Your task to perform on an android device: Open the Play Movies app and select the watchlist tab. Image 0: 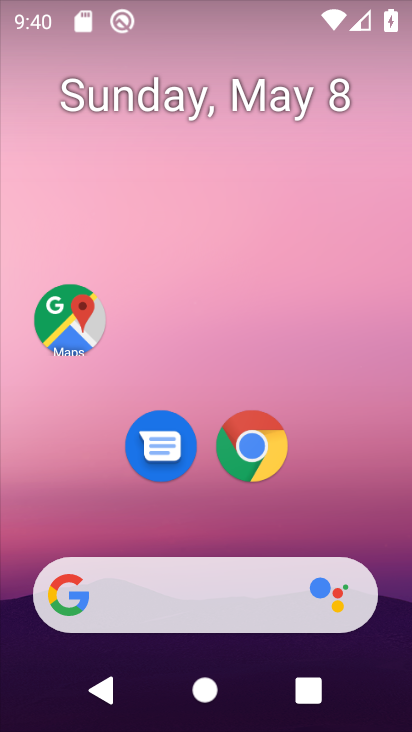
Step 0: press home button
Your task to perform on an android device: Open the Play Movies app and select the watchlist tab. Image 1: 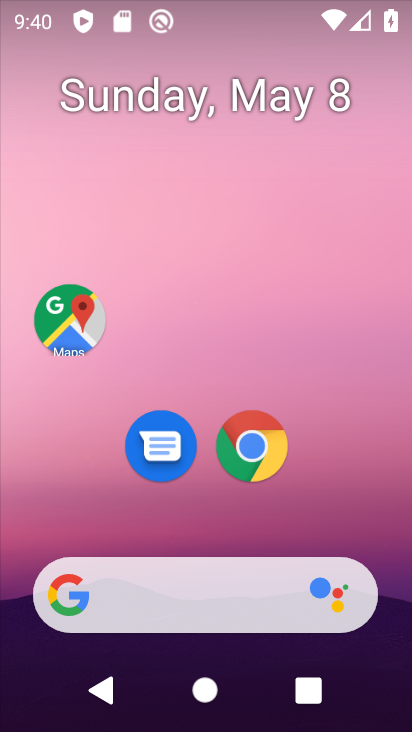
Step 1: drag from (210, 517) to (200, 7)
Your task to perform on an android device: Open the Play Movies app and select the watchlist tab. Image 2: 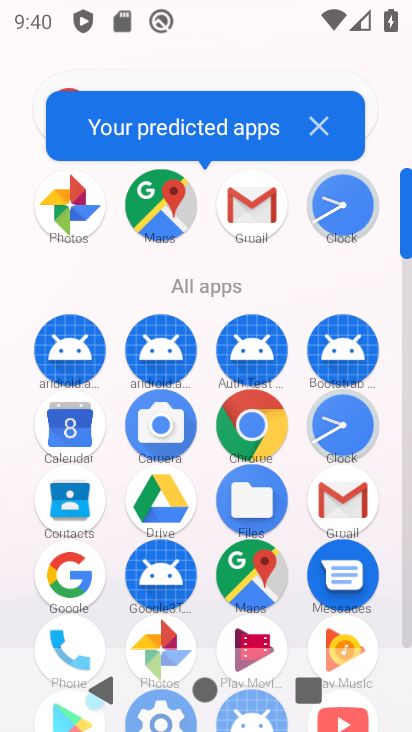
Step 2: drag from (286, 525) to (286, 152)
Your task to perform on an android device: Open the Play Movies app and select the watchlist tab. Image 3: 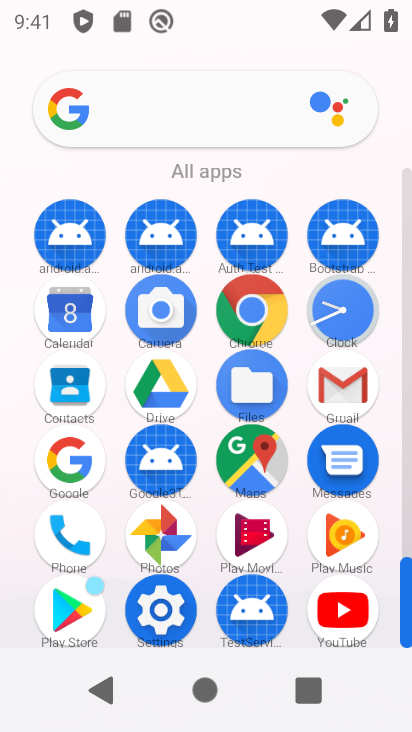
Step 3: click (250, 528)
Your task to perform on an android device: Open the Play Movies app and select the watchlist tab. Image 4: 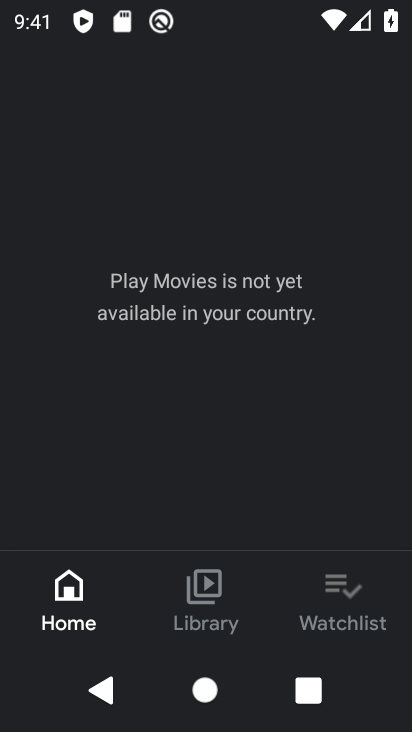
Step 4: click (343, 588)
Your task to perform on an android device: Open the Play Movies app and select the watchlist tab. Image 5: 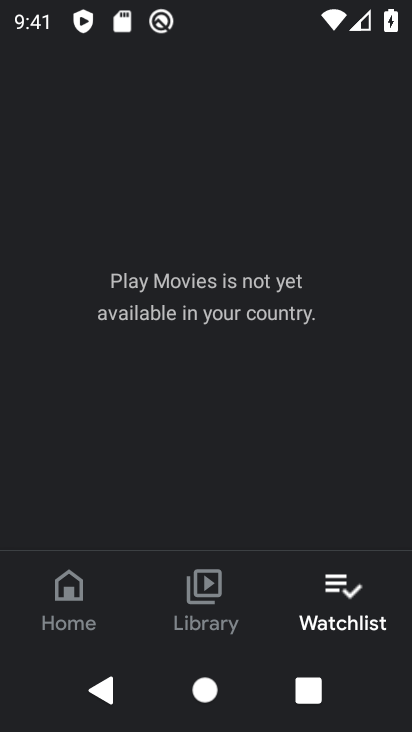
Step 5: task complete